Your task to perform on an android device: Show me my notifications Image 0: 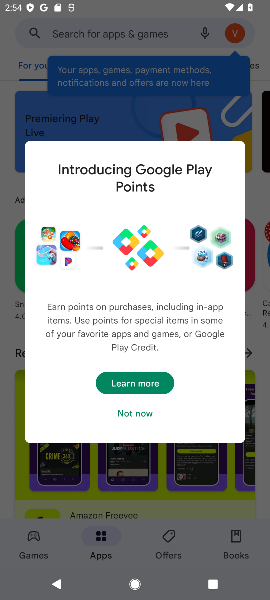
Step 0: press home button
Your task to perform on an android device: Show me my notifications Image 1: 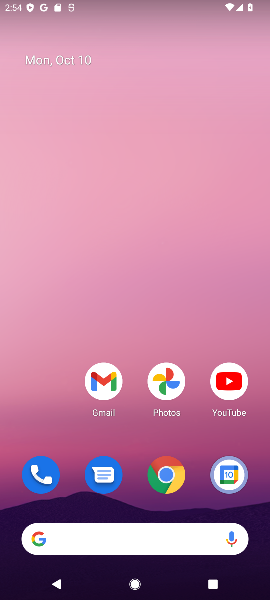
Step 1: task complete